Your task to perform on an android device: Open ESPN.com Image 0: 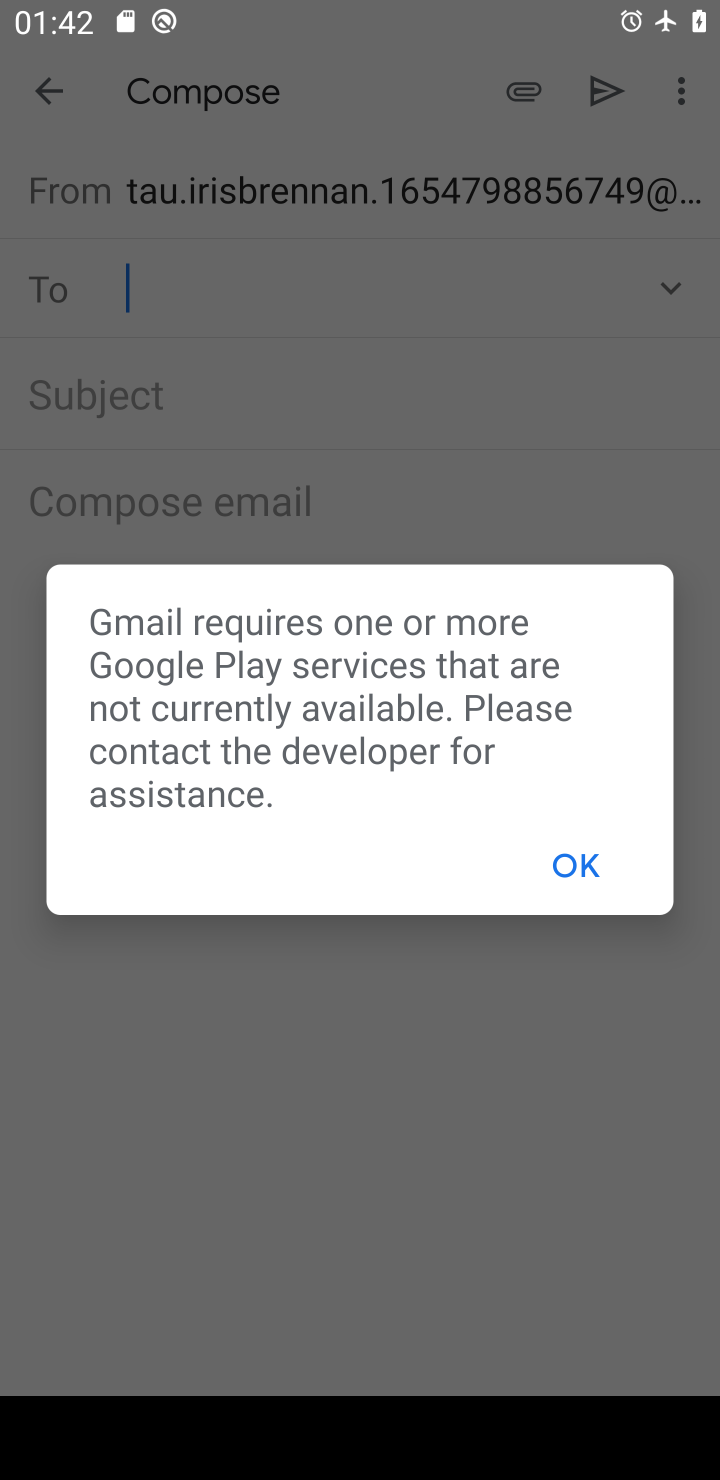
Step 0: press home button
Your task to perform on an android device: Open ESPN.com Image 1: 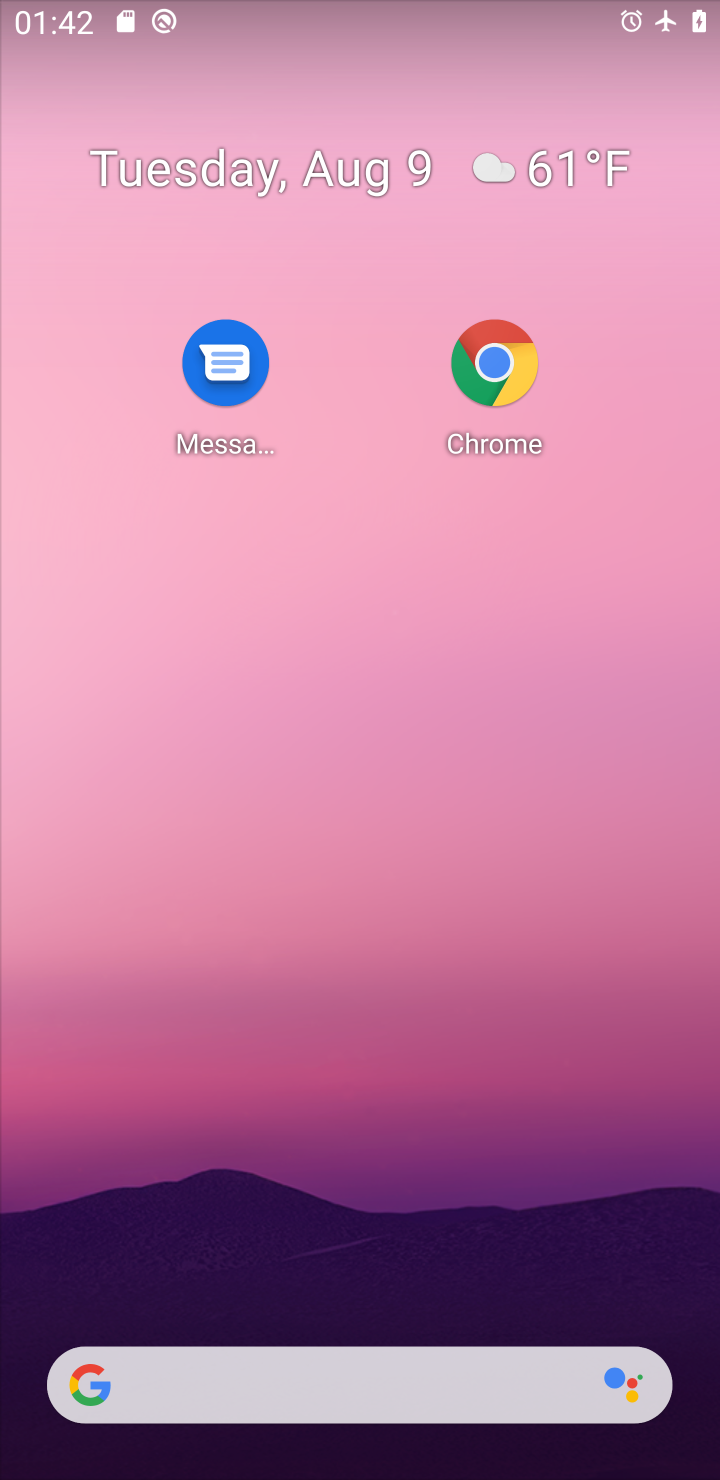
Step 1: drag from (406, 1087) to (502, 567)
Your task to perform on an android device: Open ESPN.com Image 2: 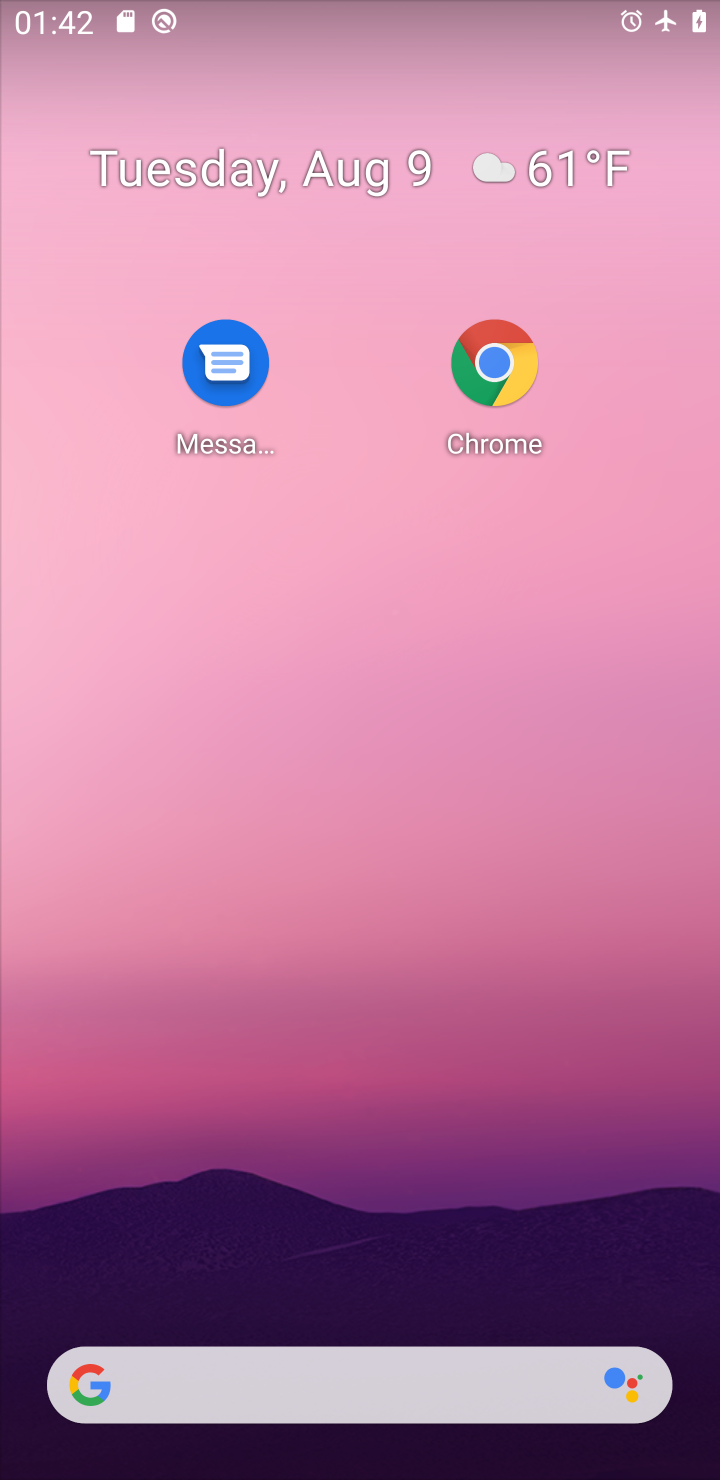
Step 2: click (356, 728)
Your task to perform on an android device: Open ESPN.com Image 3: 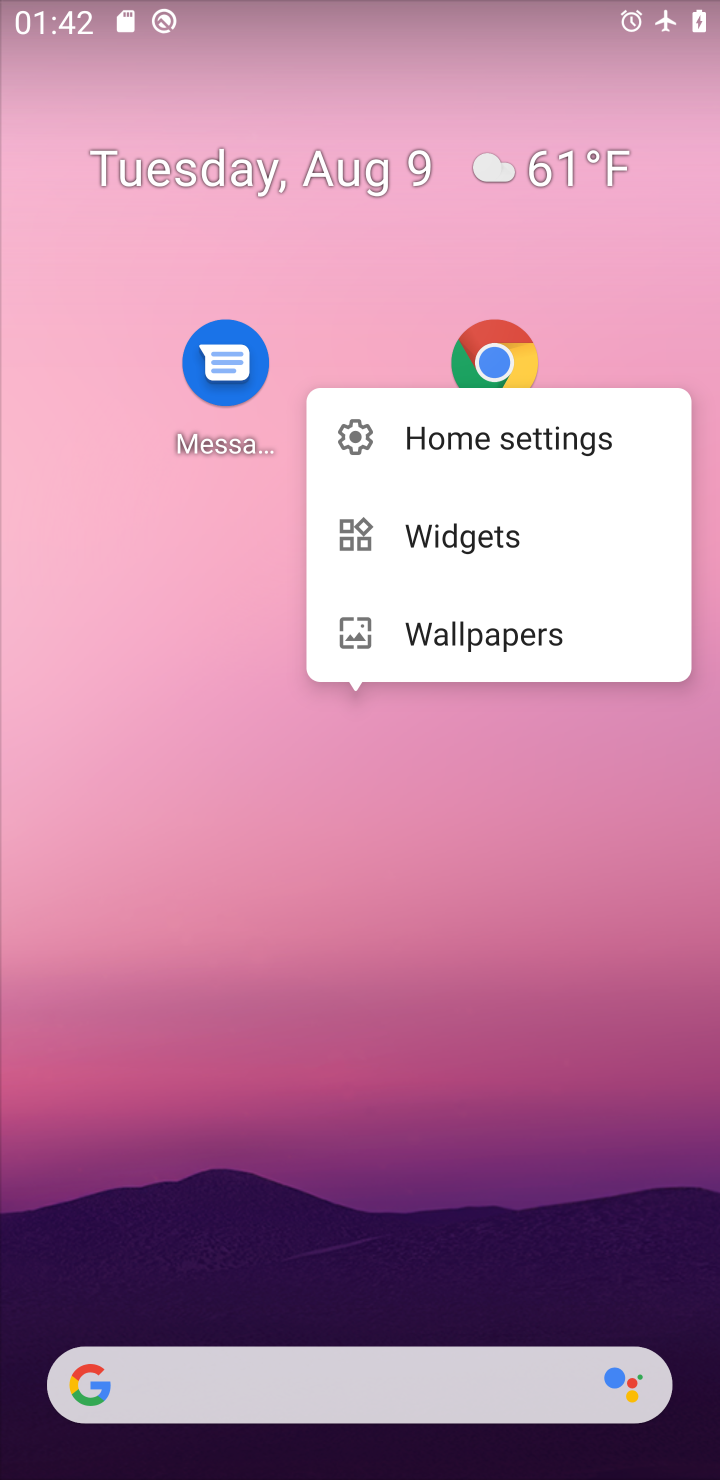
Step 3: click (362, 1164)
Your task to perform on an android device: Open ESPN.com Image 4: 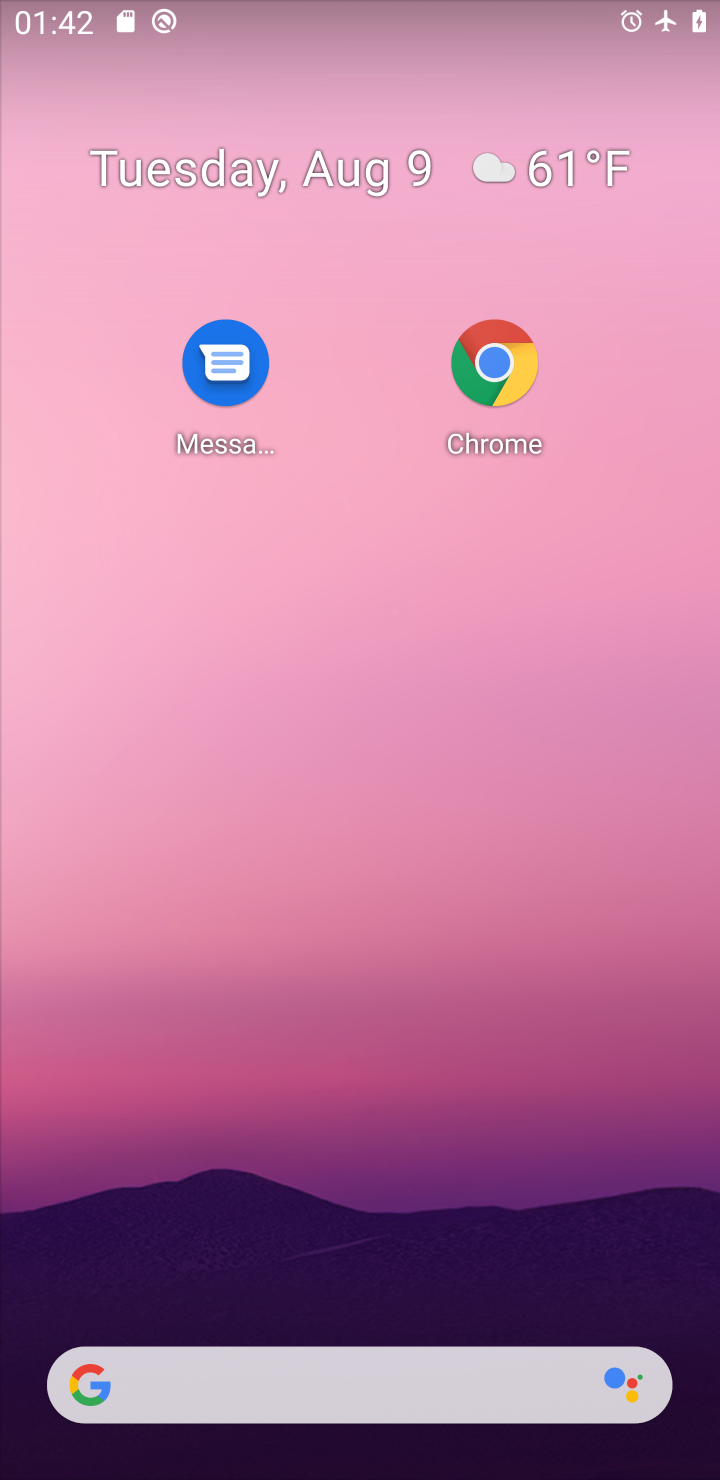
Step 4: drag from (354, 870) to (403, 124)
Your task to perform on an android device: Open ESPN.com Image 5: 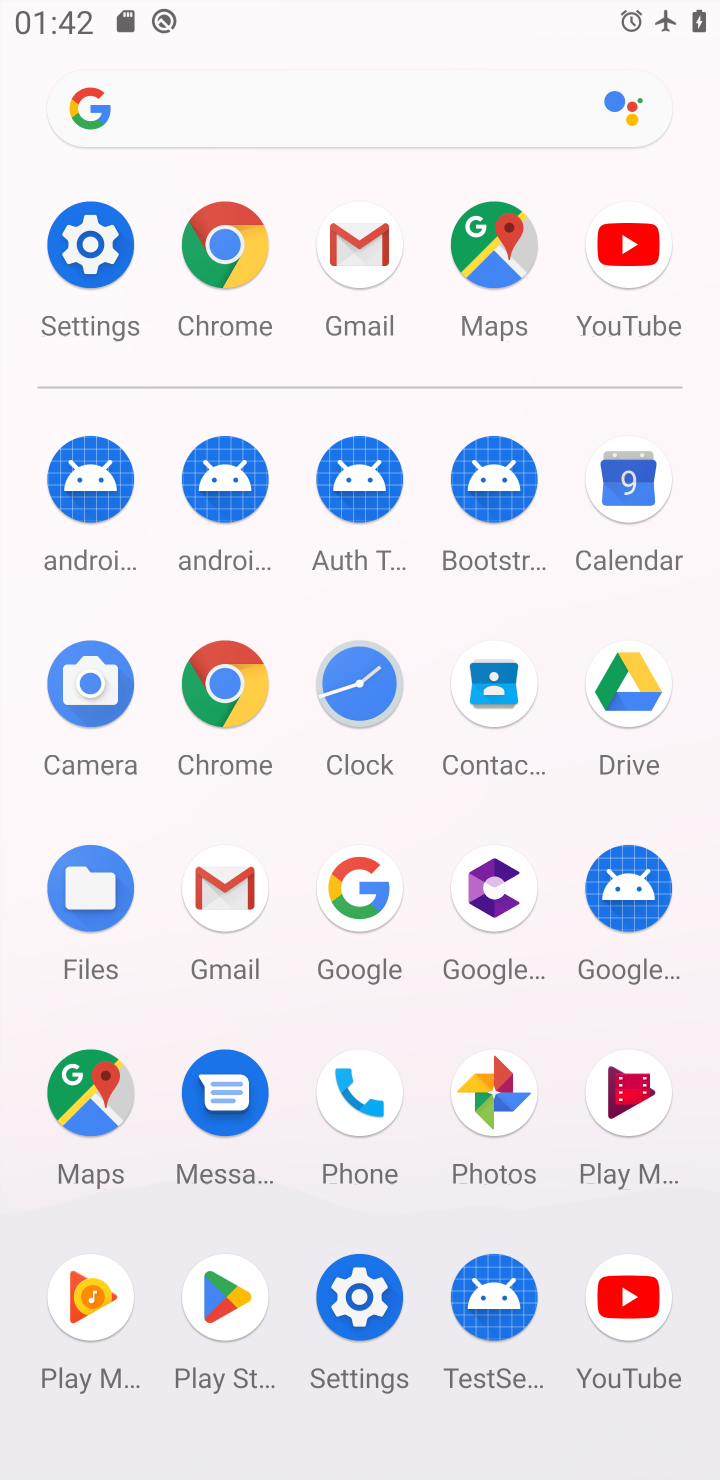
Step 5: click (201, 223)
Your task to perform on an android device: Open ESPN.com Image 6: 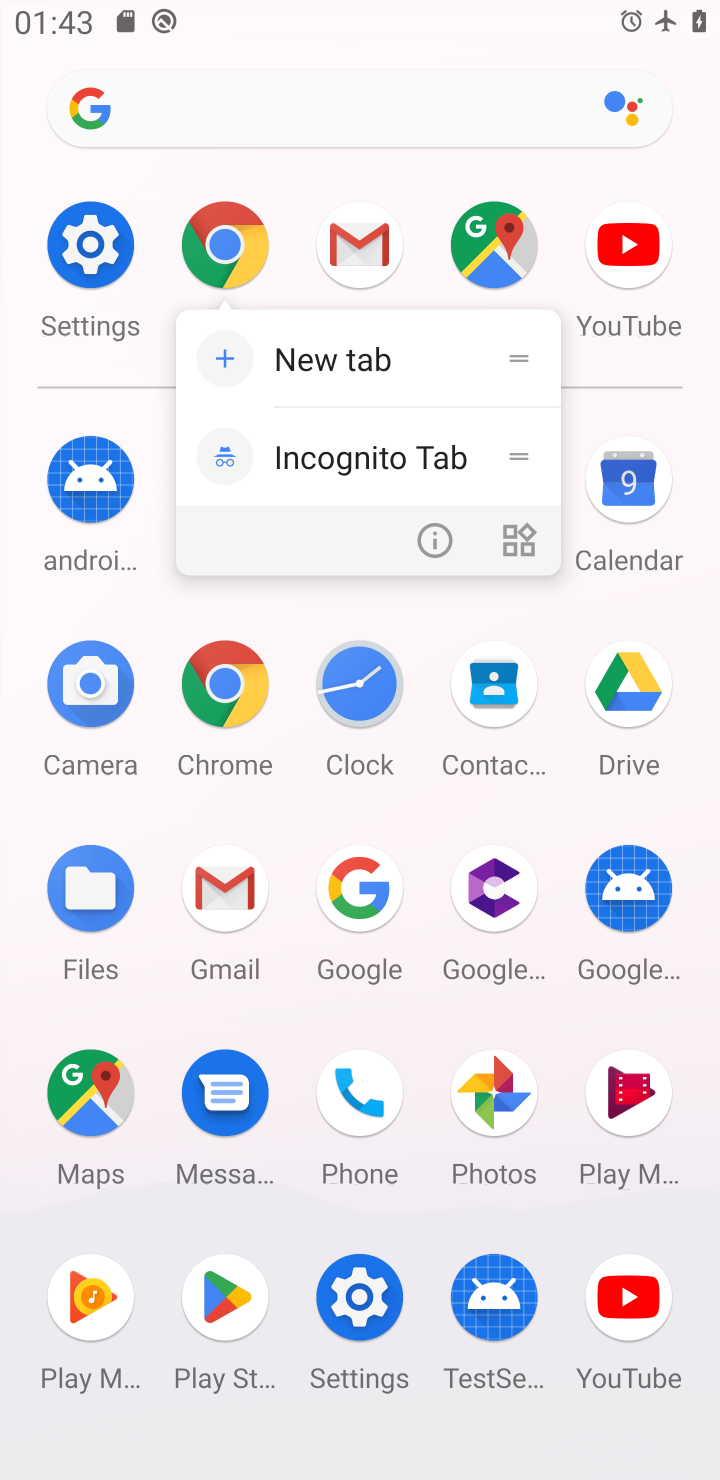
Step 6: click (225, 227)
Your task to perform on an android device: Open ESPN.com Image 7: 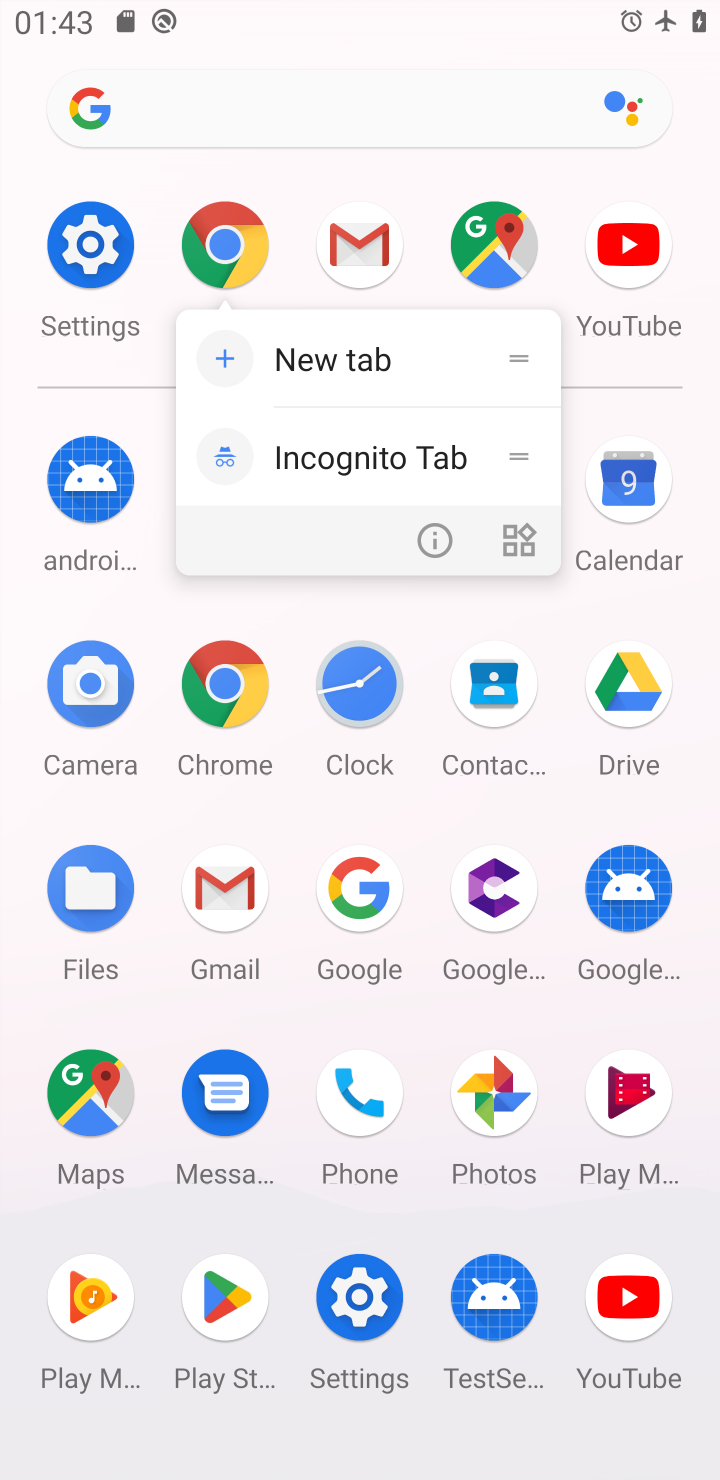
Step 7: click (198, 244)
Your task to perform on an android device: Open ESPN.com Image 8: 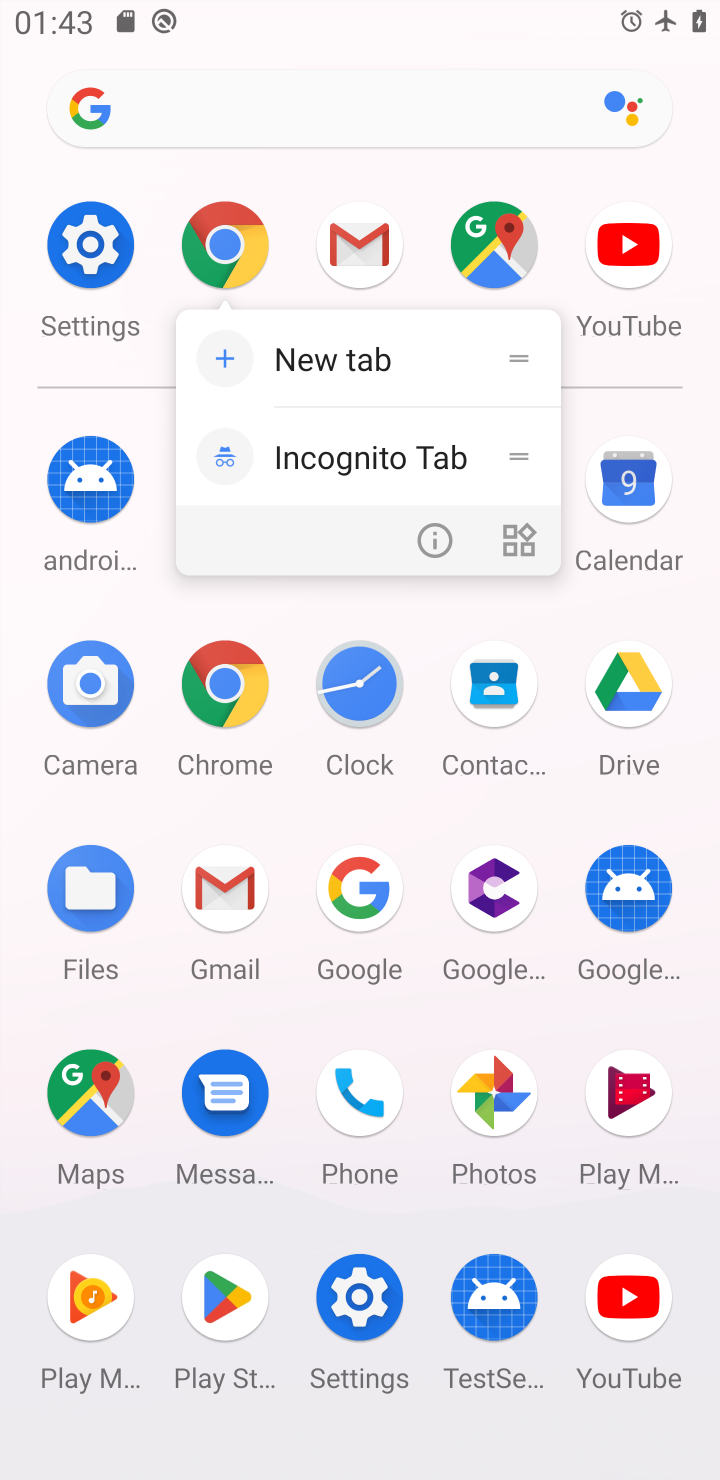
Step 8: click (198, 244)
Your task to perform on an android device: Open ESPN.com Image 9: 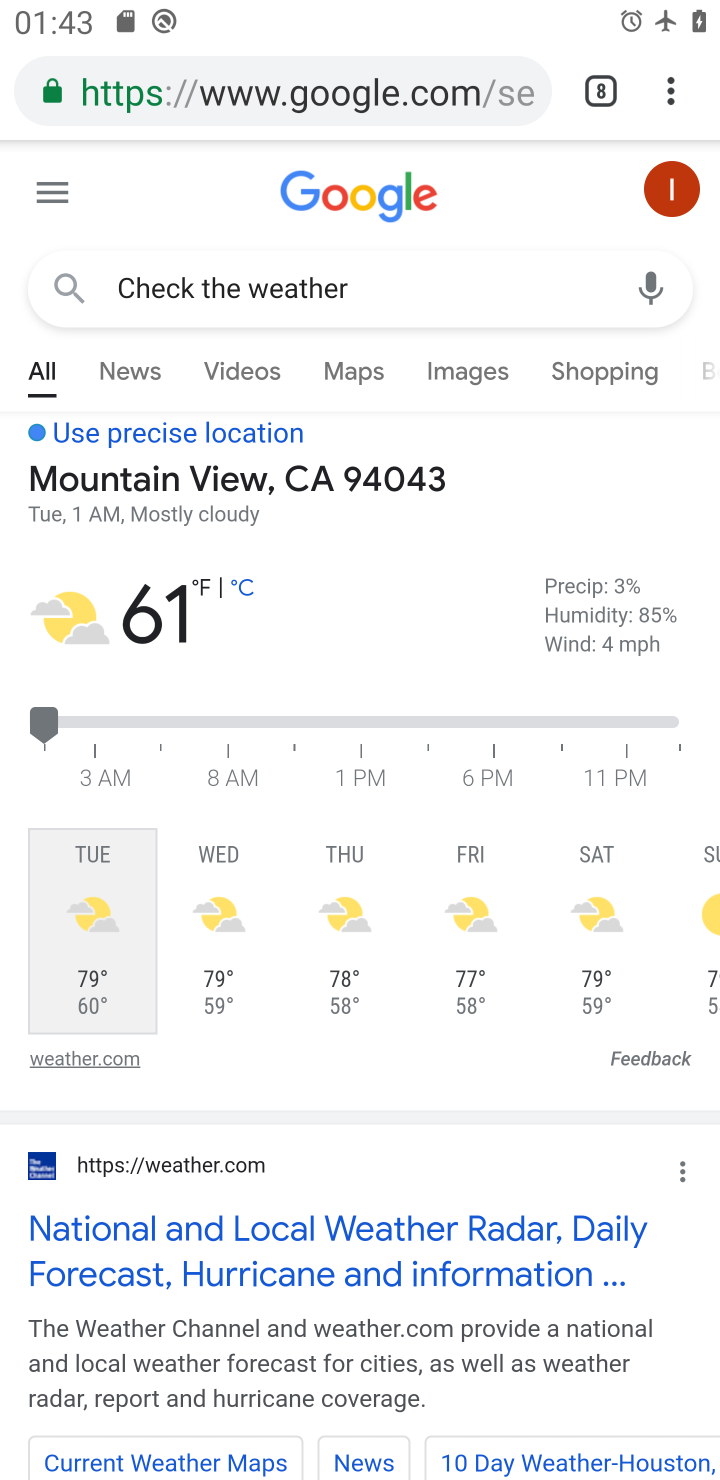
Step 9: click (686, 79)
Your task to perform on an android device: Open ESPN.com Image 10: 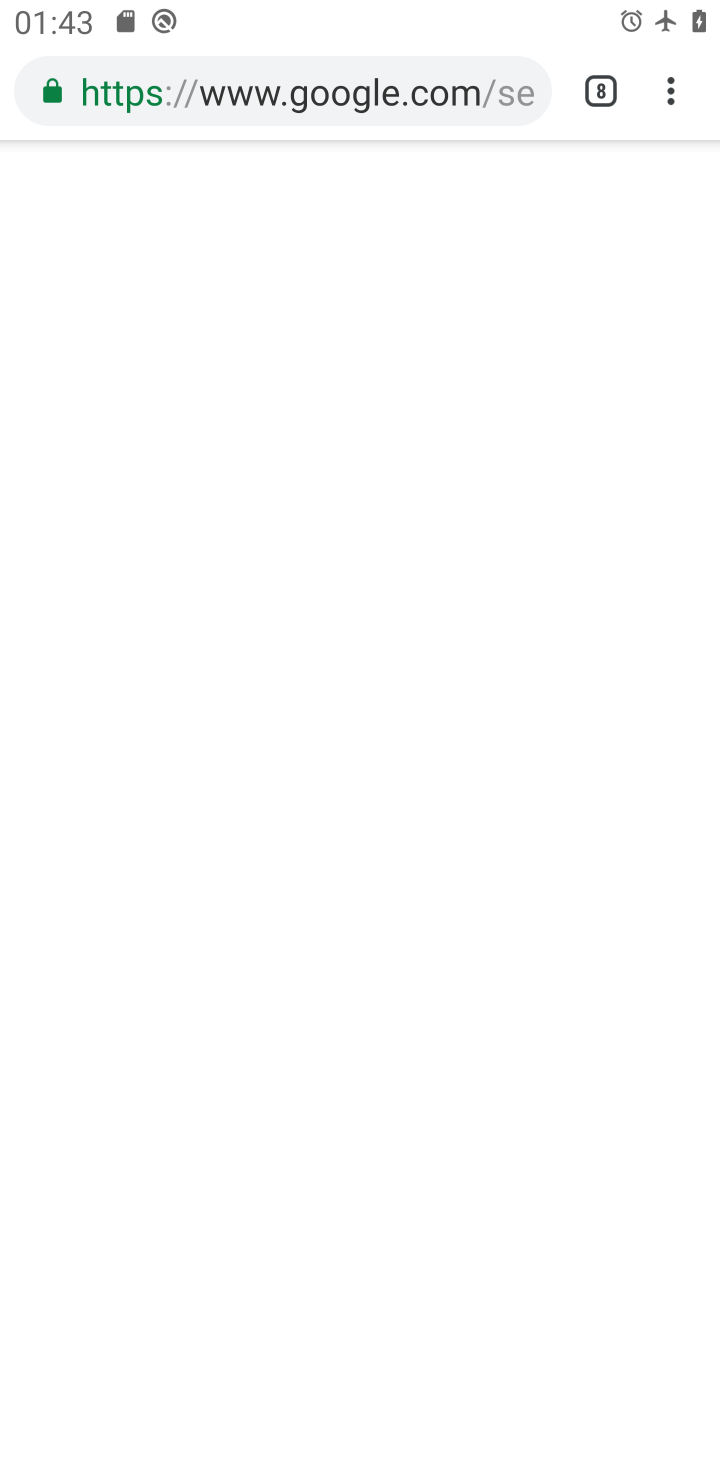
Step 10: click (669, 79)
Your task to perform on an android device: Open ESPN.com Image 11: 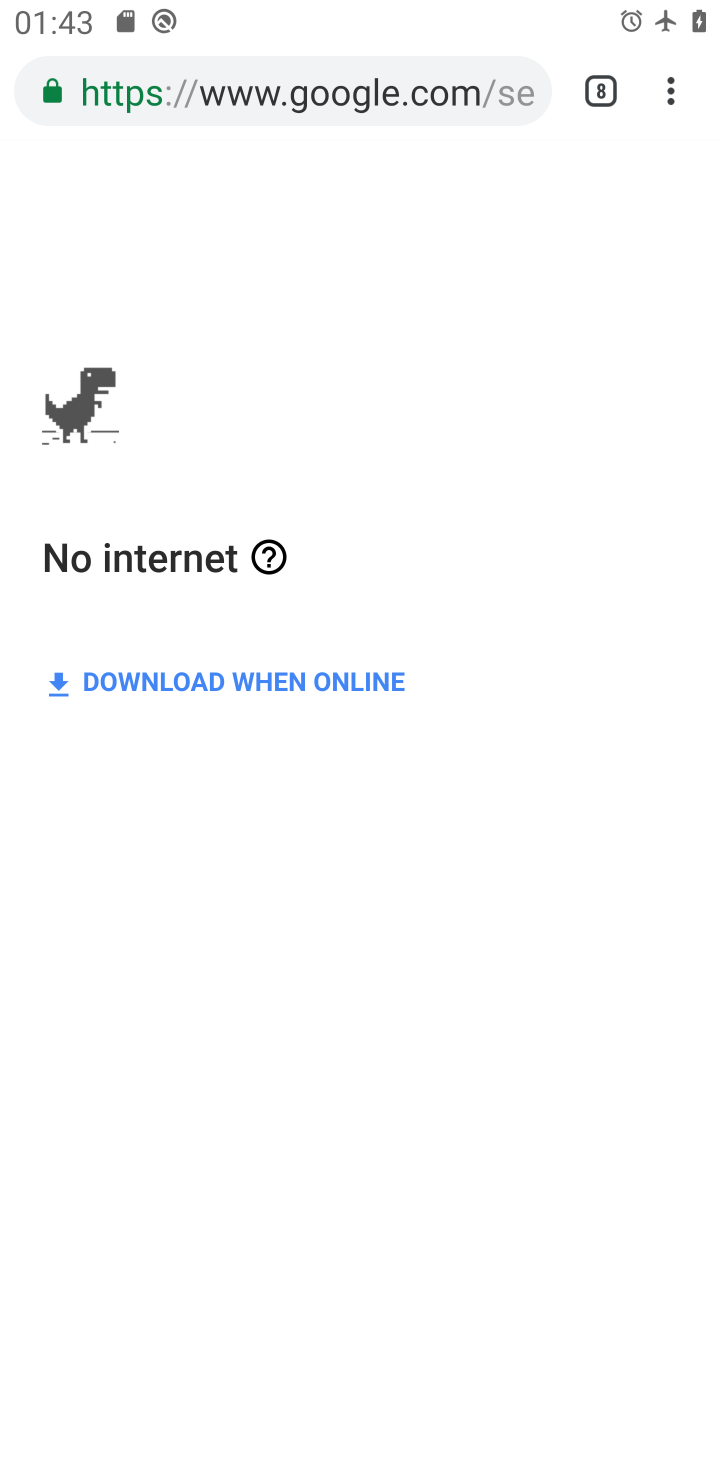
Step 11: click (669, 79)
Your task to perform on an android device: Open ESPN.com Image 12: 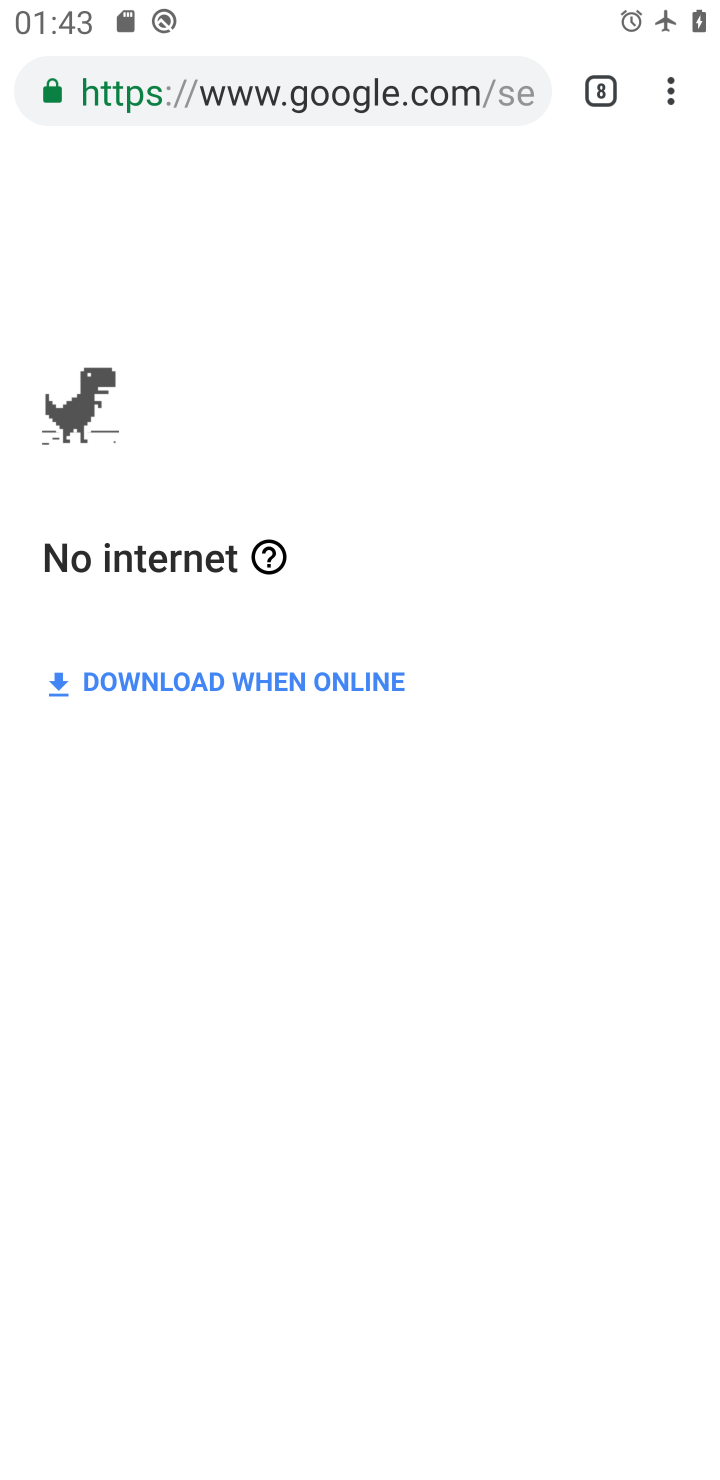
Step 12: click (673, 87)
Your task to perform on an android device: Open ESPN.com Image 13: 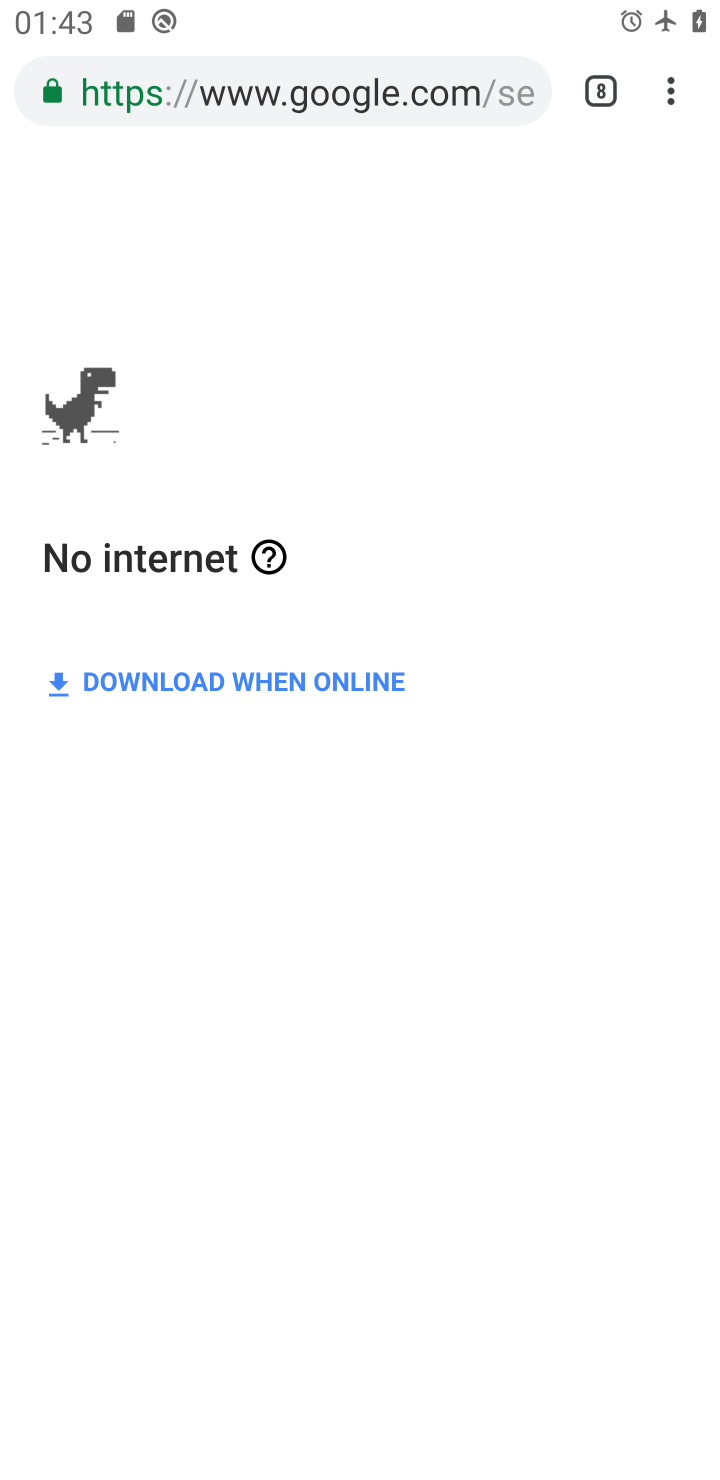
Step 13: click (644, 108)
Your task to perform on an android device: Open ESPN.com Image 14: 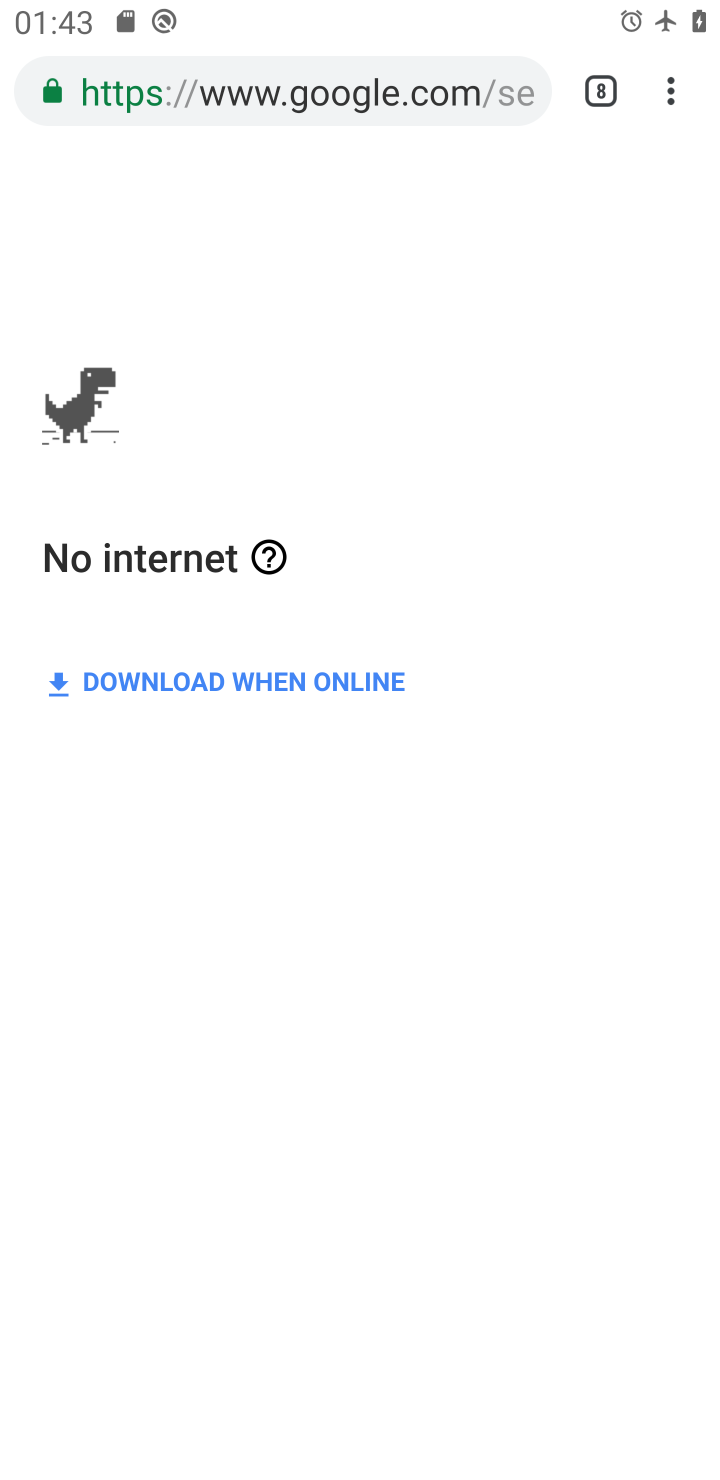
Step 14: click (683, 76)
Your task to perform on an android device: Open ESPN.com Image 15: 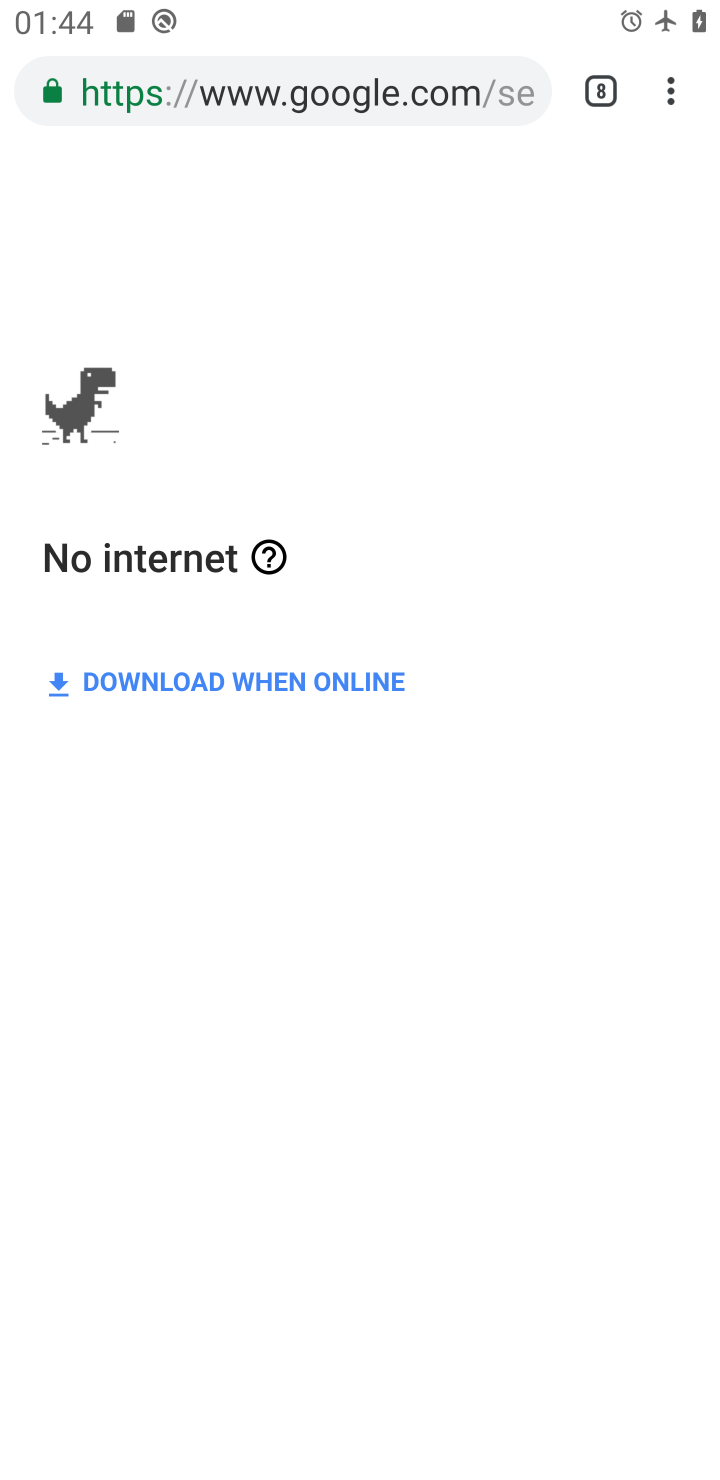
Step 15: click (672, 90)
Your task to perform on an android device: Open ESPN.com Image 16: 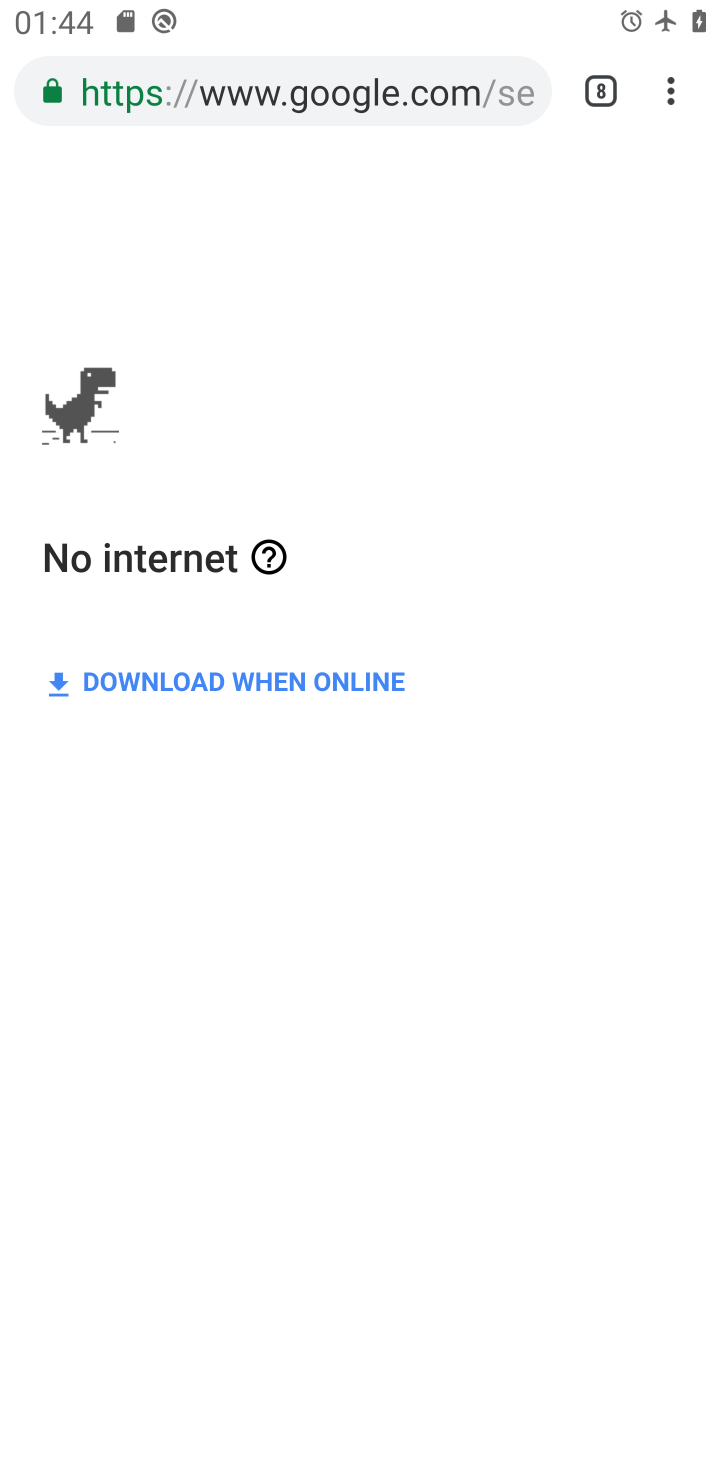
Step 16: click (672, 90)
Your task to perform on an android device: Open ESPN.com Image 17: 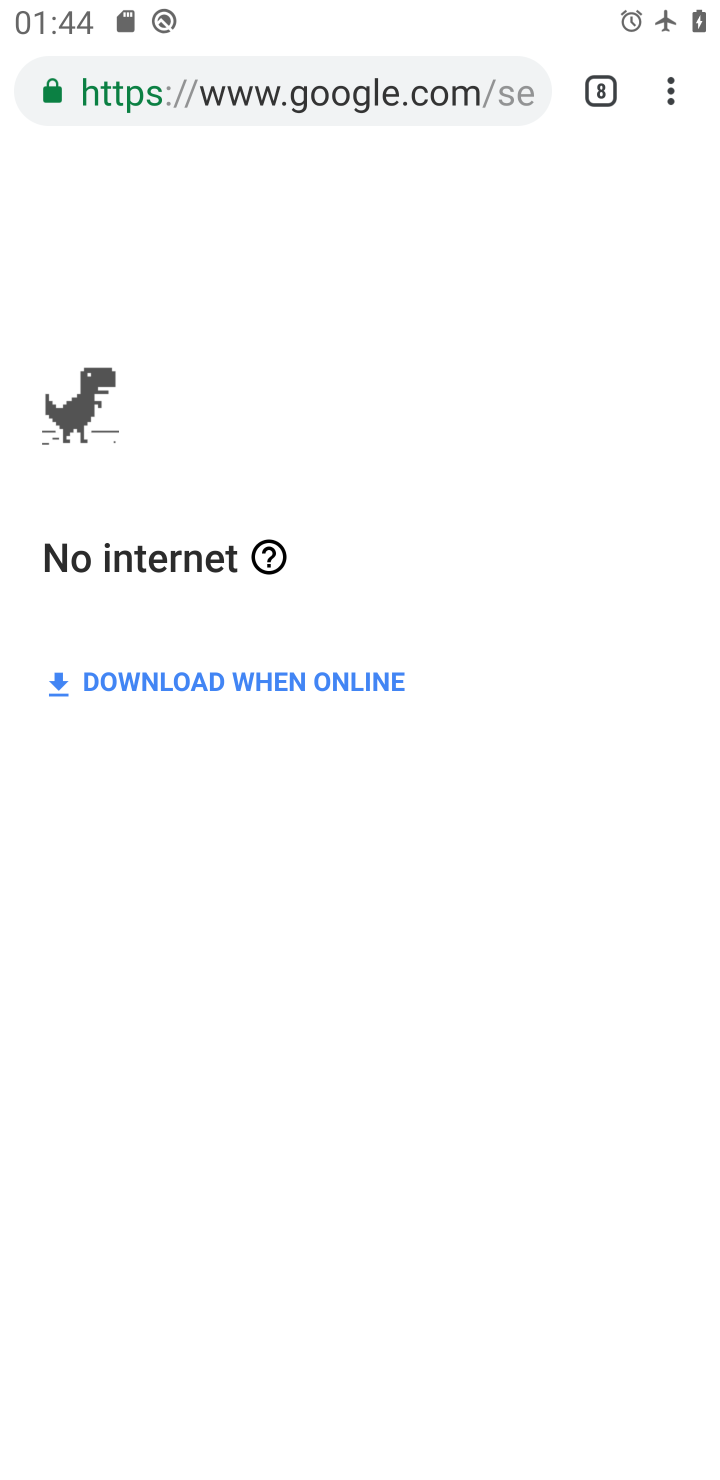
Step 17: click (672, 114)
Your task to perform on an android device: Open ESPN.com Image 18: 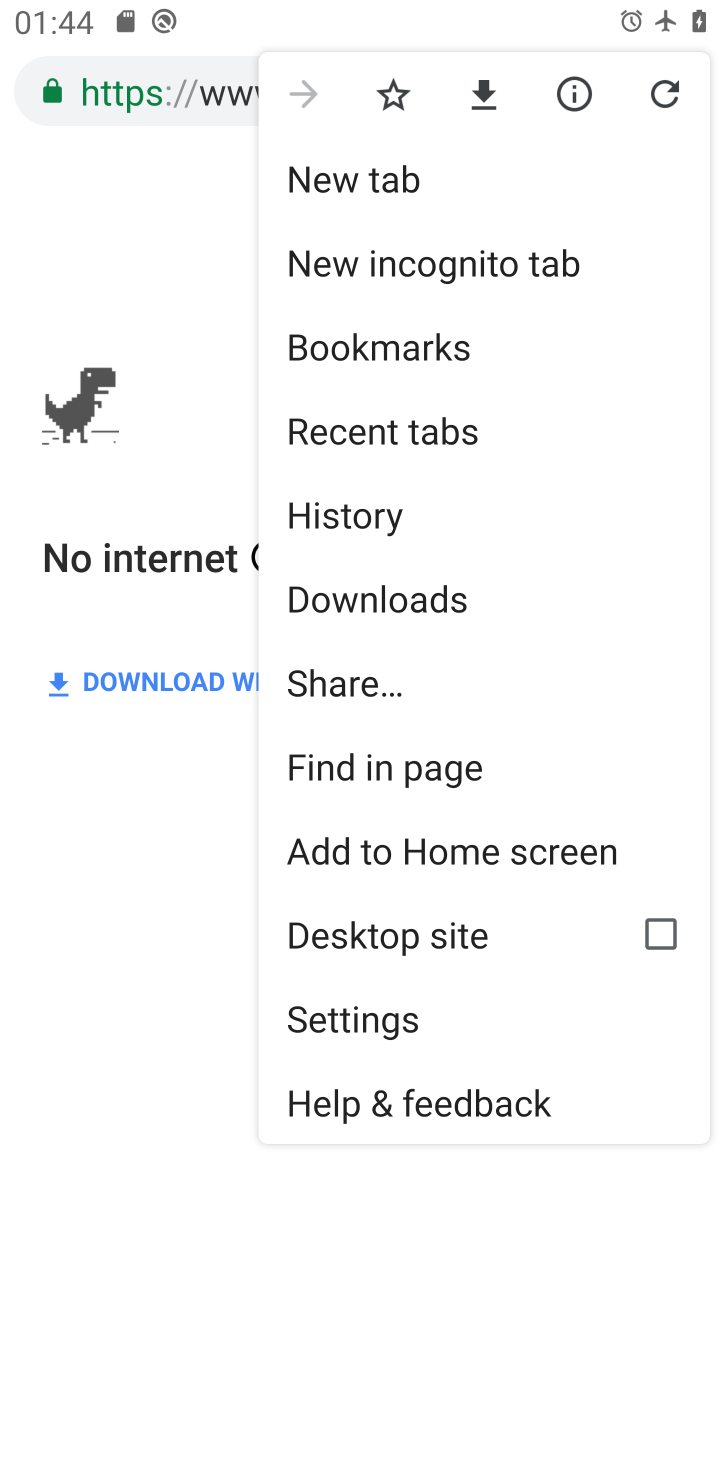
Step 18: click (393, 181)
Your task to perform on an android device: Open ESPN.com Image 19: 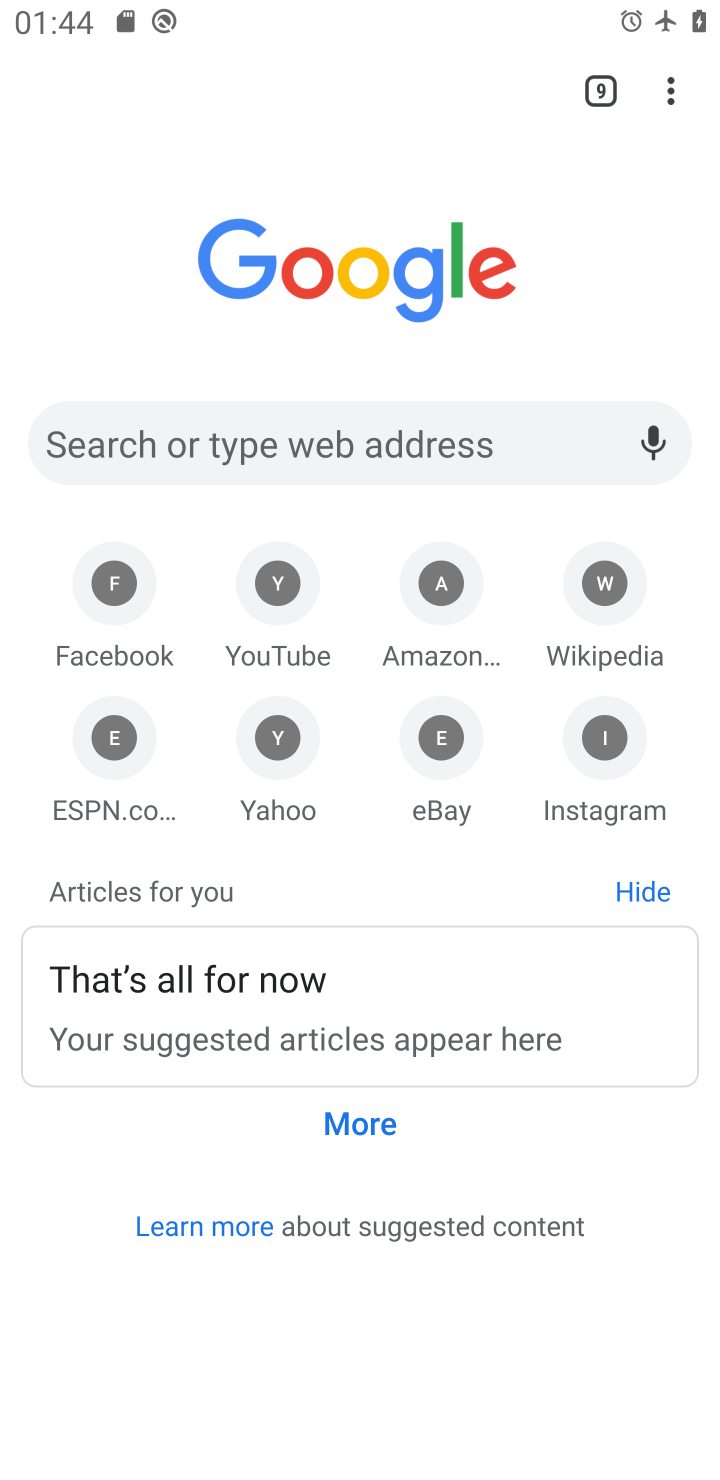
Step 19: click (85, 731)
Your task to perform on an android device: Open ESPN.com Image 20: 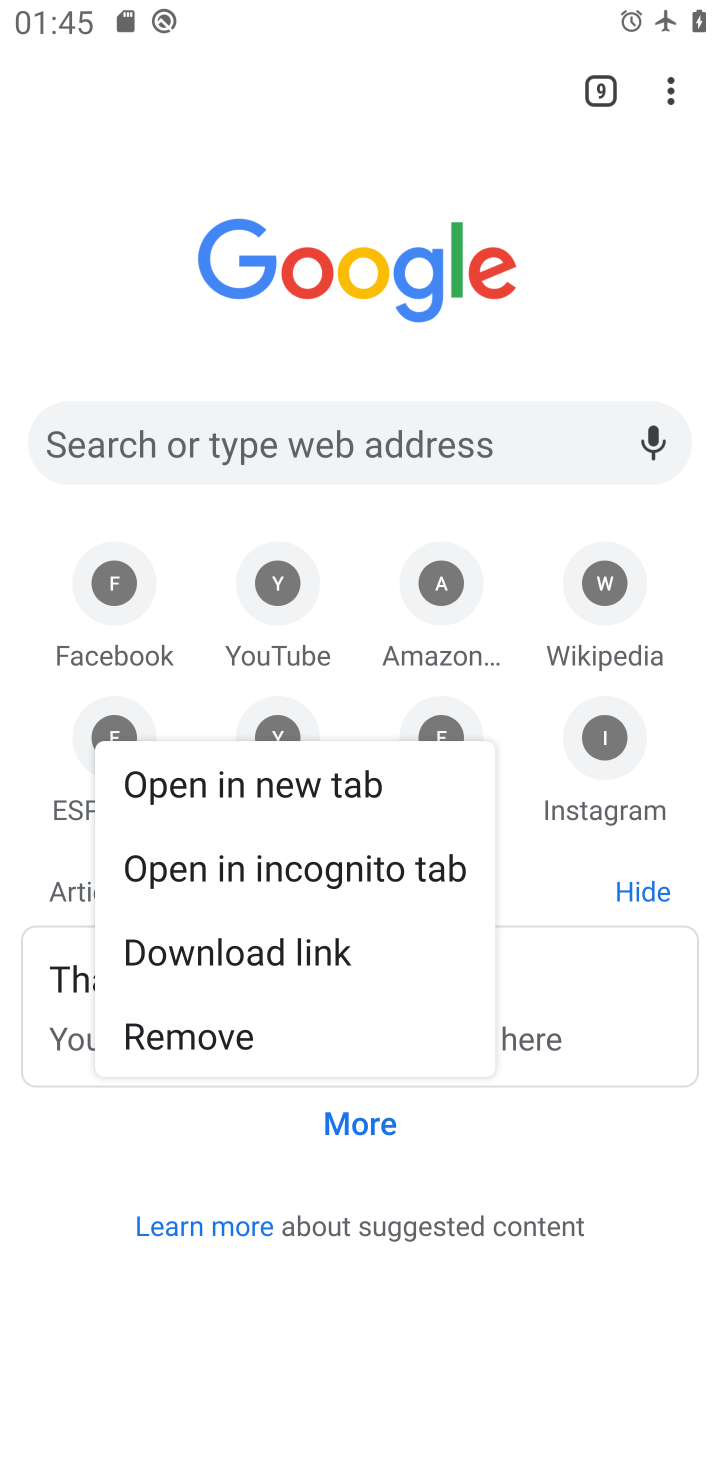
Step 20: click (123, 706)
Your task to perform on an android device: Open ESPN.com Image 21: 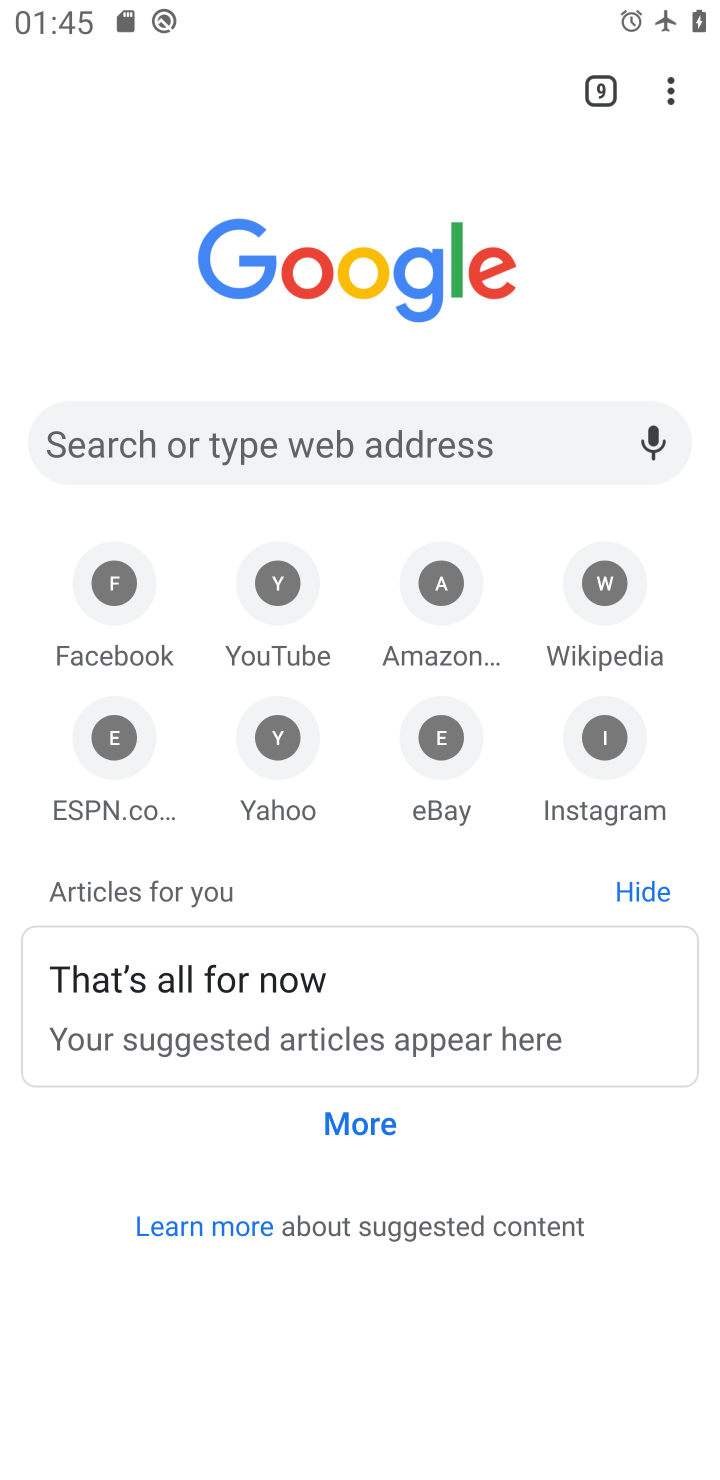
Step 21: click (119, 721)
Your task to perform on an android device: Open ESPN.com Image 22: 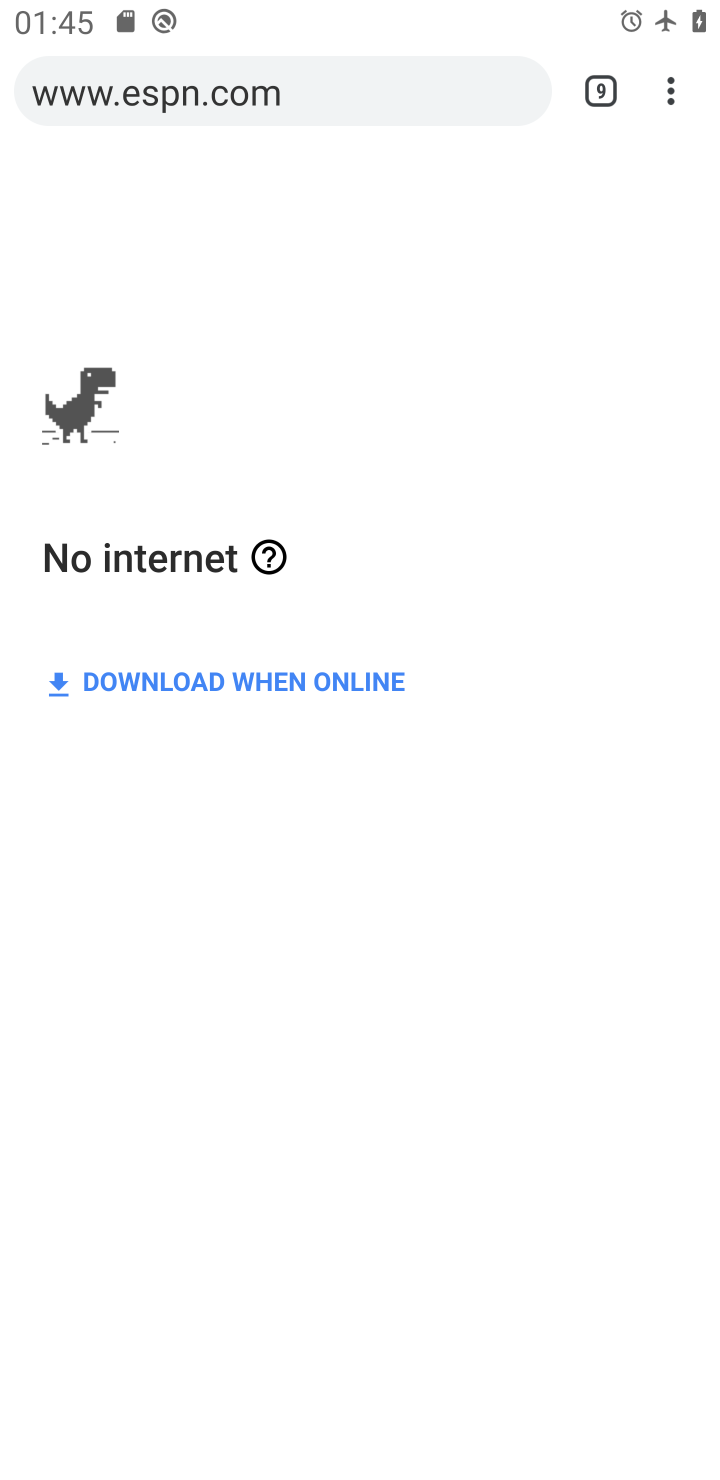
Step 22: task complete